Your task to perform on an android device: Open Google Image 0: 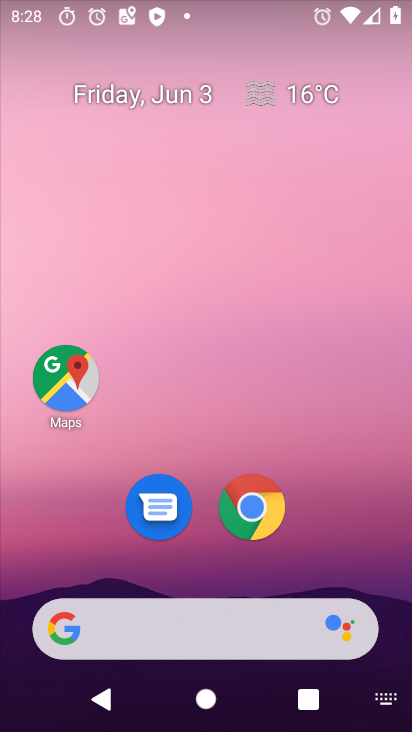
Step 0: press home button
Your task to perform on an android device: Open Google Image 1: 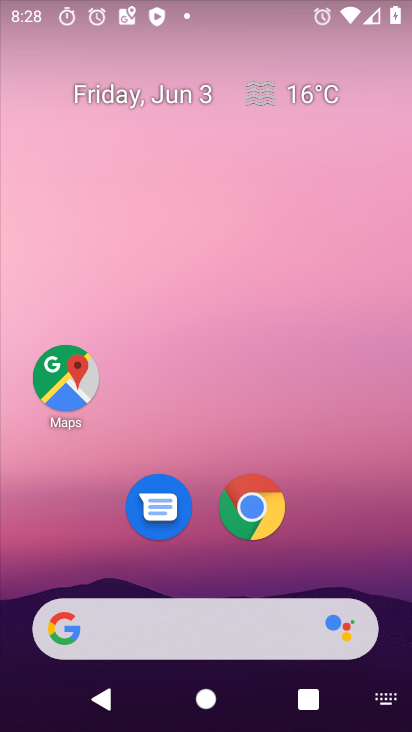
Step 1: drag from (318, 336) to (38, 31)
Your task to perform on an android device: Open Google Image 2: 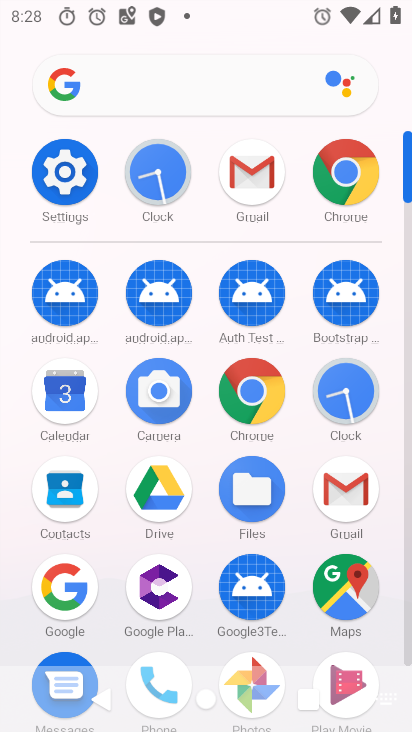
Step 2: click (69, 591)
Your task to perform on an android device: Open Google Image 3: 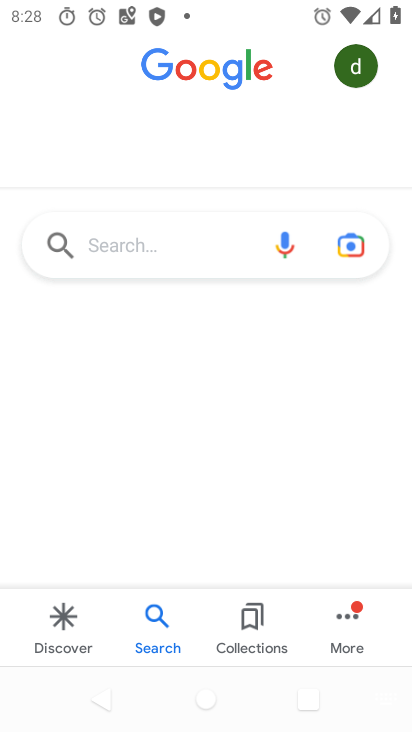
Step 3: task complete